Your task to perform on an android device: Empty the shopping cart on costco.com. Search for "razer blackwidow" on costco.com, select the first entry, add it to the cart, then select checkout. Image 0: 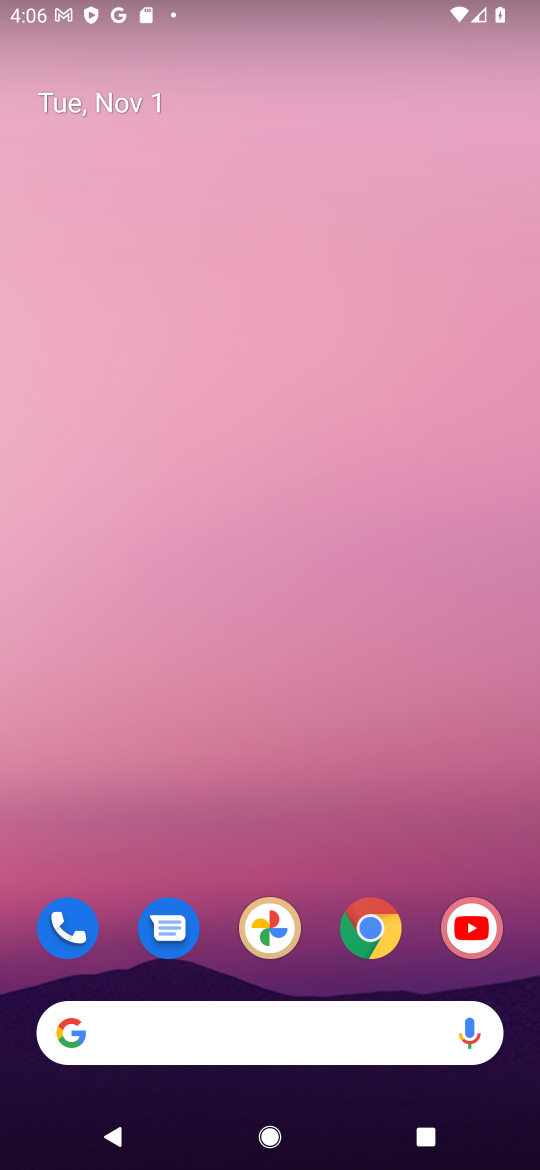
Step 0: click (383, 939)
Your task to perform on an android device: Empty the shopping cart on costco.com. Search for "razer blackwidow" on costco.com, select the first entry, add it to the cart, then select checkout. Image 1: 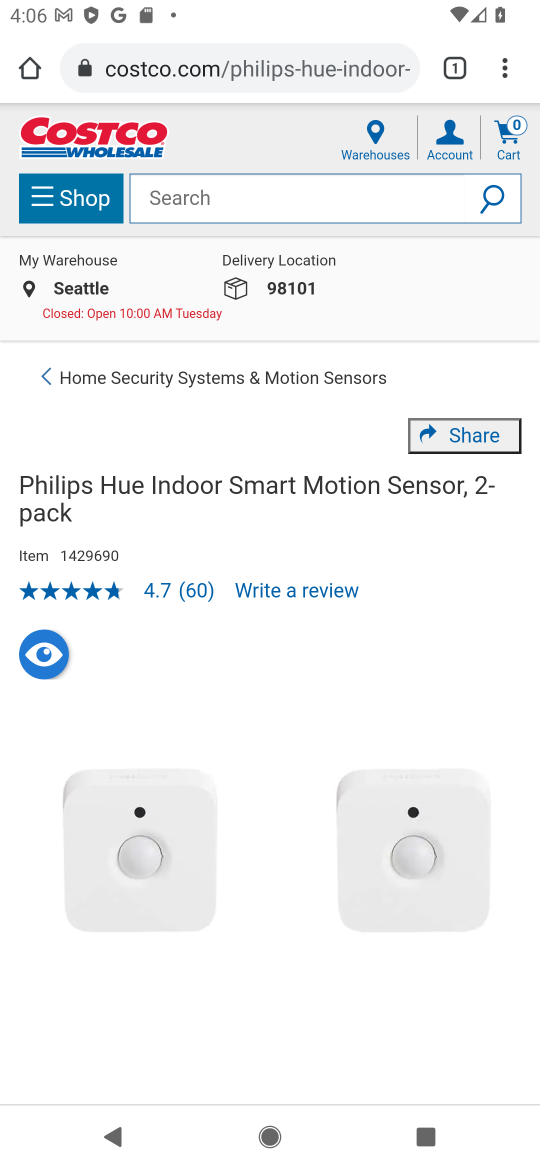
Step 1: click (222, 76)
Your task to perform on an android device: Empty the shopping cart on costco.com. Search for "razer blackwidow" on costco.com, select the first entry, add it to the cart, then select checkout. Image 2: 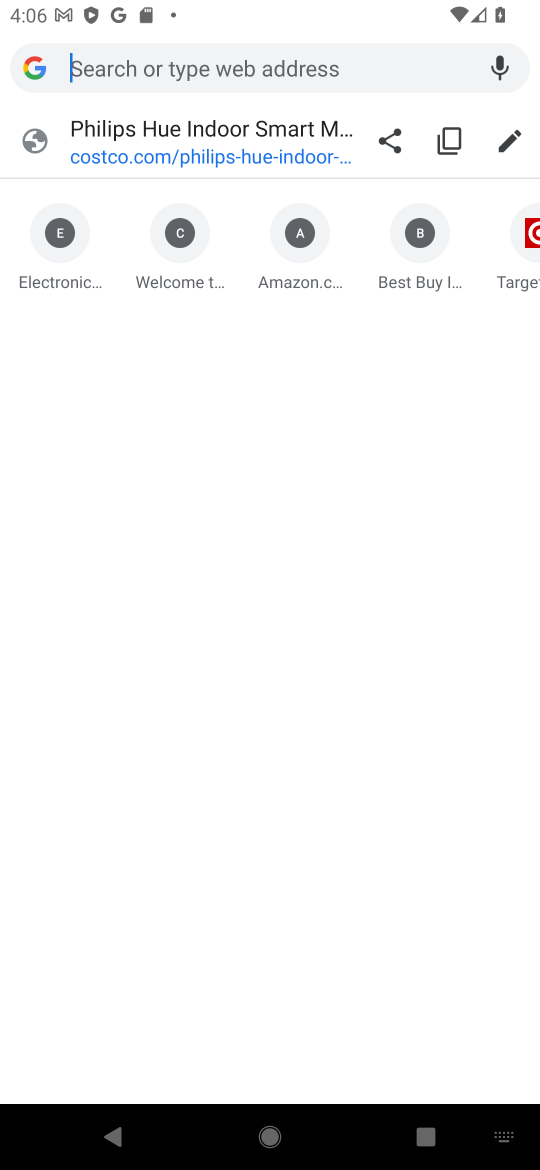
Step 2: type "costco.com"
Your task to perform on an android device: Empty the shopping cart on costco.com. Search for "razer blackwidow" on costco.com, select the first entry, add it to the cart, then select checkout. Image 3: 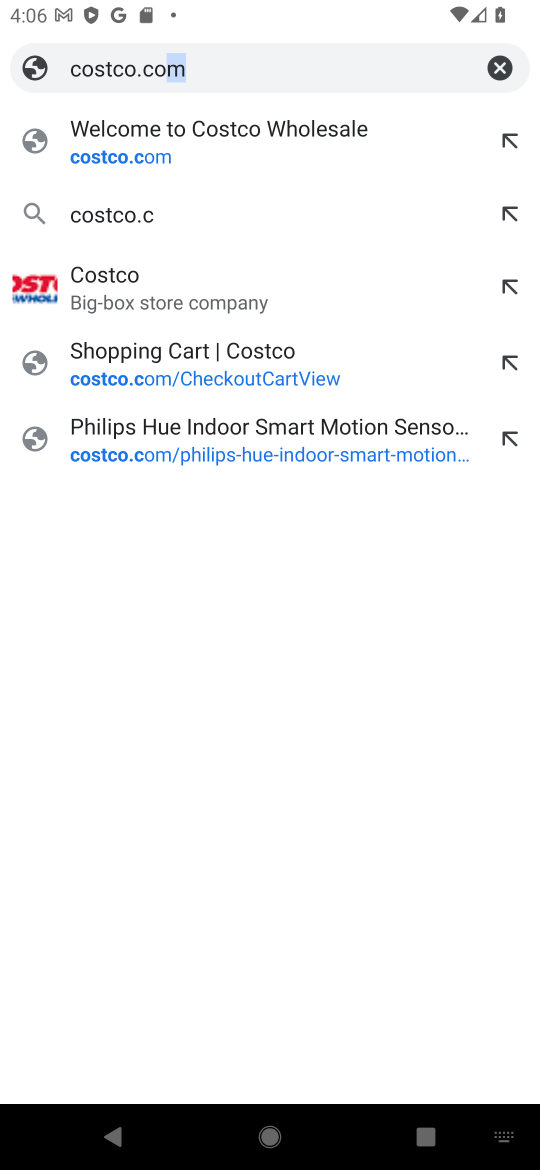
Step 3: press enter
Your task to perform on an android device: Empty the shopping cart on costco.com. Search for "razer blackwidow" on costco.com, select the first entry, add it to the cart, then select checkout. Image 4: 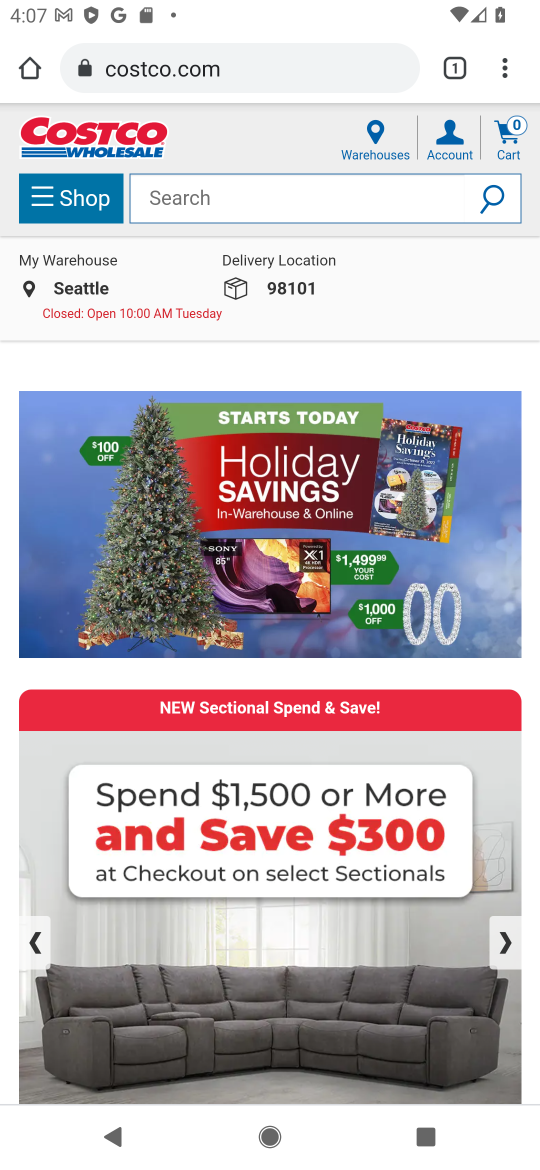
Step 4: click (515, 139)
Your task to perform on an android device: Empty the shopping cart on costco.com. Search for "razer blackwidow" on costco.com, select the first entry, add it to the cart, then select checkout. Image 5: 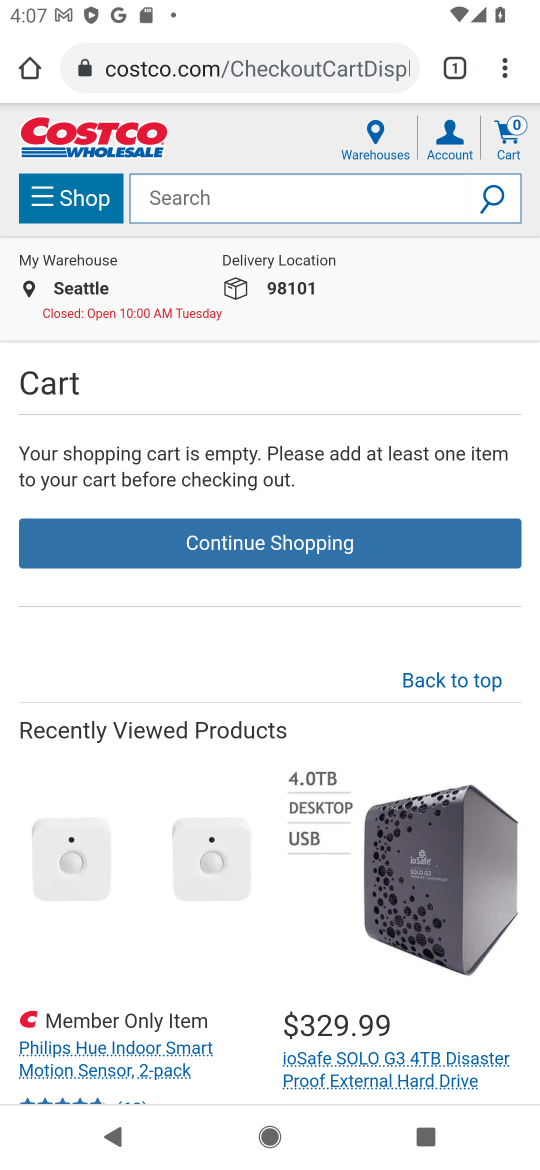
Step 5: click (340, 193)
Your task to perform on an android device: Empty the shopping cart on costco.com. Search for "razer blackwidow" on costco.com, select the first entry, add it to the cart, then select checkout. Image 6: 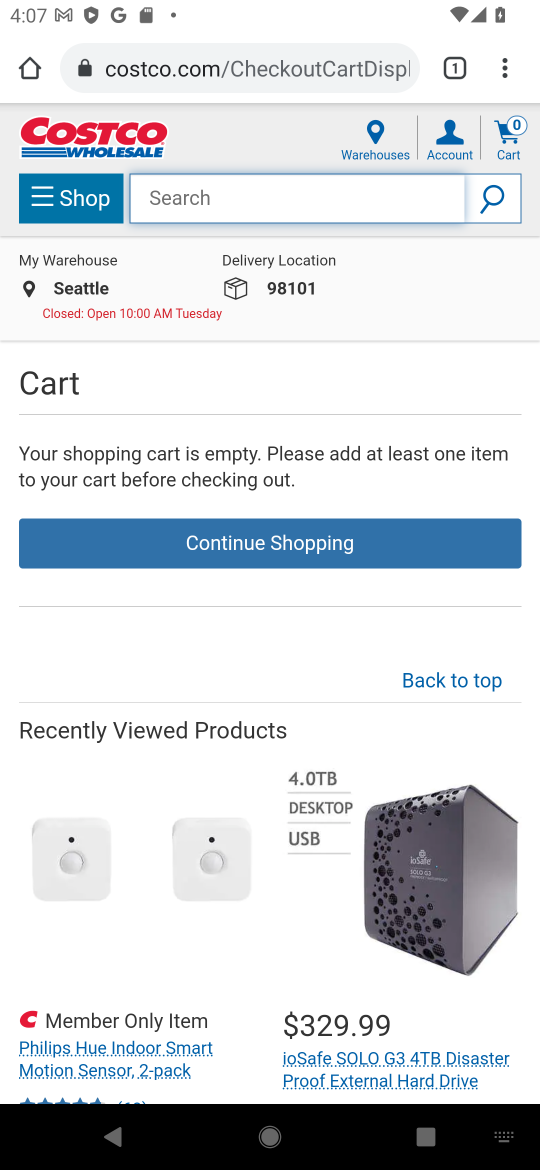
Step 6: type "razer blackwidow"
Your task to perform on an android device: Empty the shopping cart on costco.com. Search for "razer blackwidow" on costco.com, select the first entry, add it to the cart, then select checkout. Image 7: 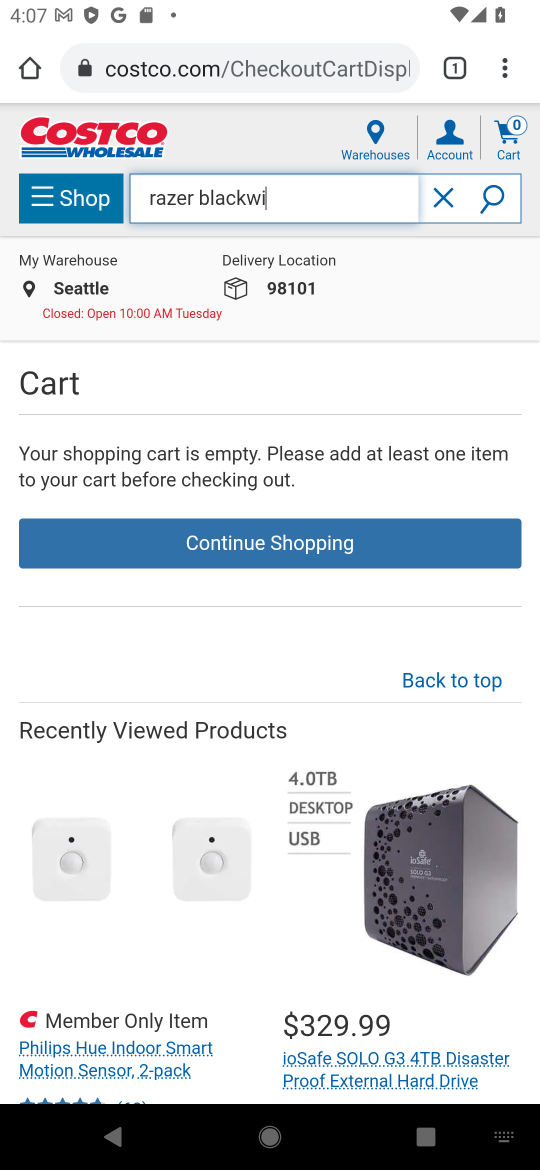
Step 7: type ""
Your task to perform on an android device: Empty the shopping cart on costco.com. Search for "razer blackwidow" on costco.com, select the first entry, add it to the cart, then select checkout. Image 8: 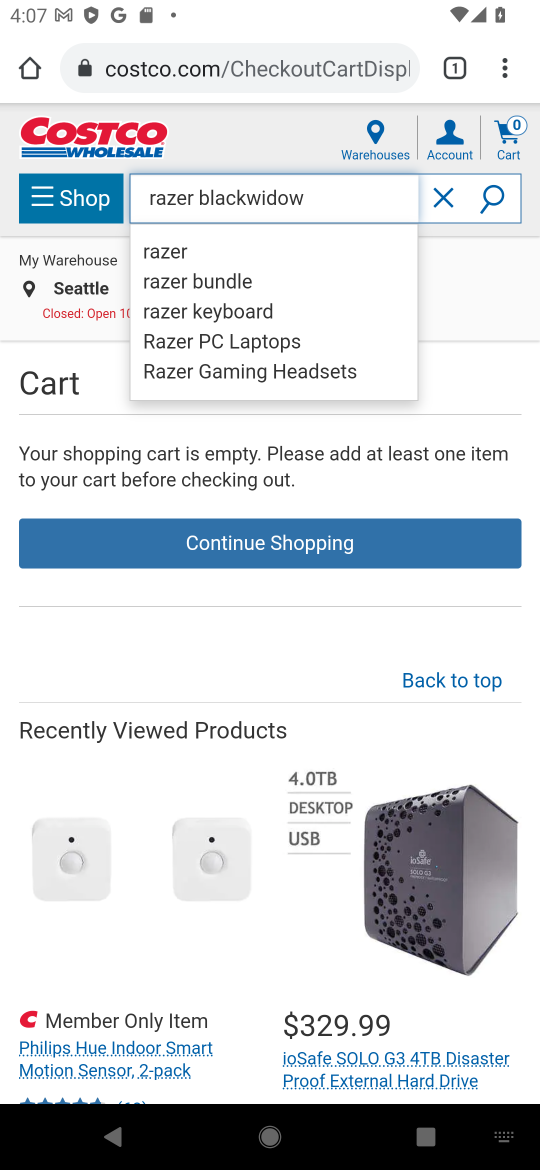
Step 8: press enter
Your task to perform on an android device: Empty the shopping cart on costco.com. Search for "razer blackwidow" on costco.com, select the first entry, add it to the cart, then select checkout. Image 9: 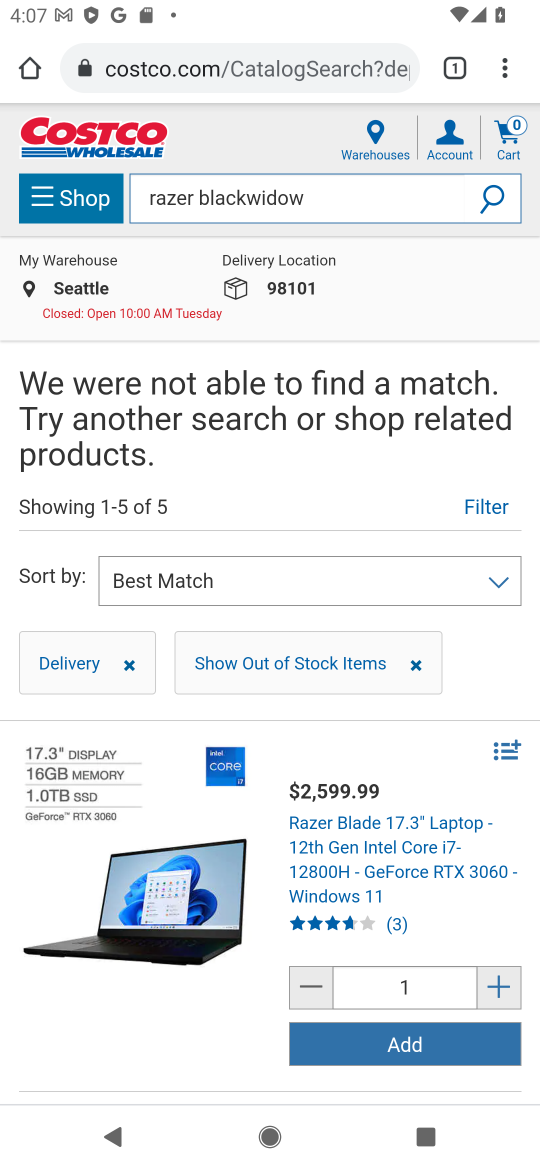
Step 9: task complete